Your task to perform on an android device: make emails show in primary in the gmail app Image 0: 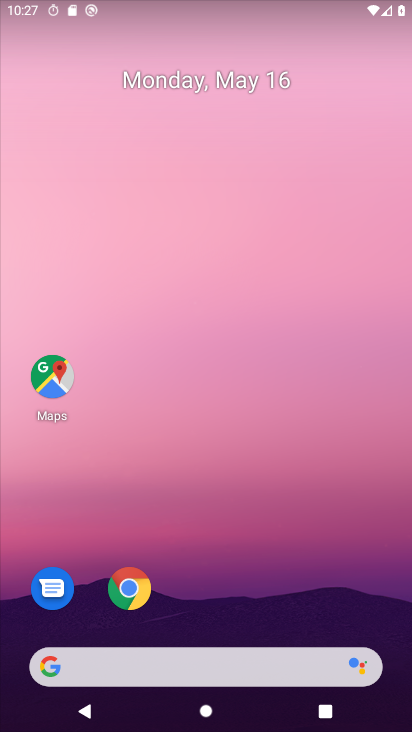
Step 0: press home button
Your task to perform on an android device: make emails show in primary in the gmail app Image 1: 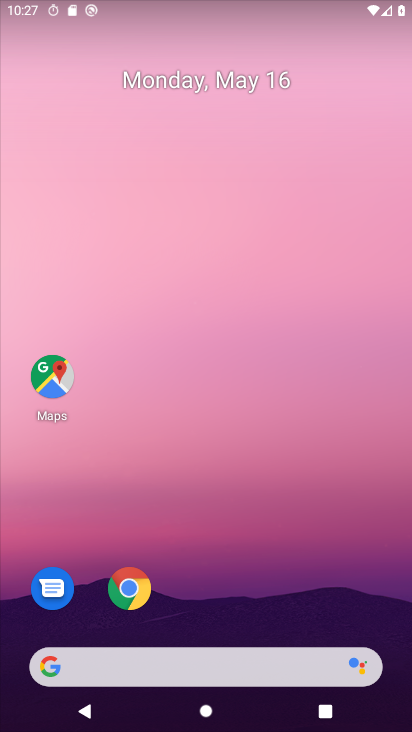
Step 1: drag from (213, 626) to (211, 4)
Your task to perform on an android device: make emails show in primary in the gmail app Image 2: 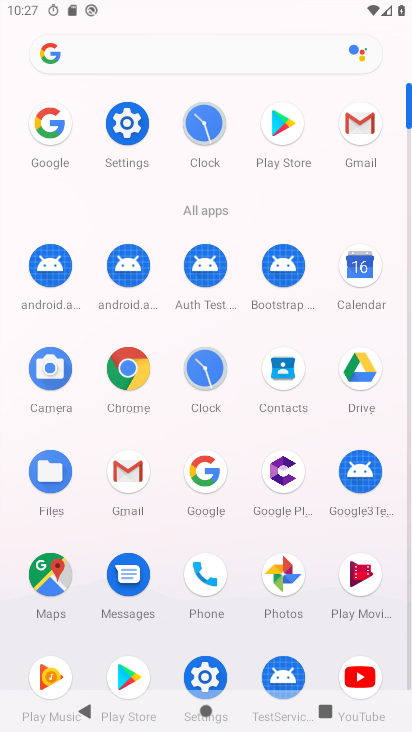
Step 2: click (126, 464)
Your task to perform on an android device: make emails show in primary in the gmail app Image 3: 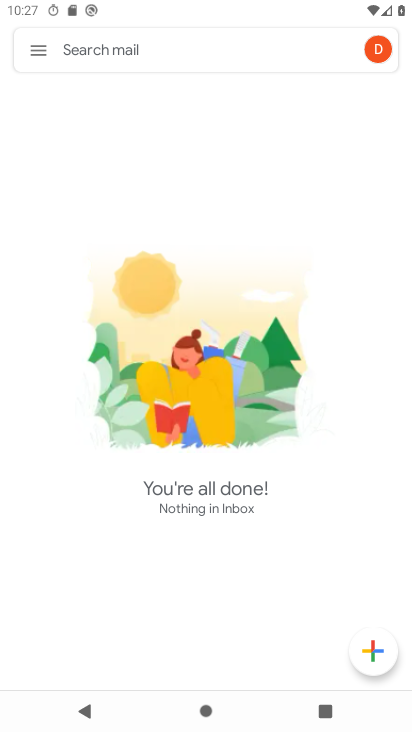
Step 3: click (33, 46)
Your task to perform on an android device: make emails show in primary in the gmail app Image 4: 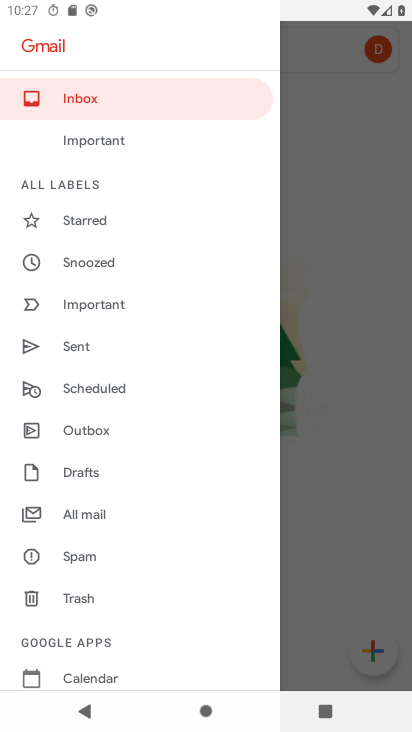
Step 4: drag from (141, 642) to (164, 15)
Your task to perform on an android device: make emails show in primary in the gmail app Image 5: 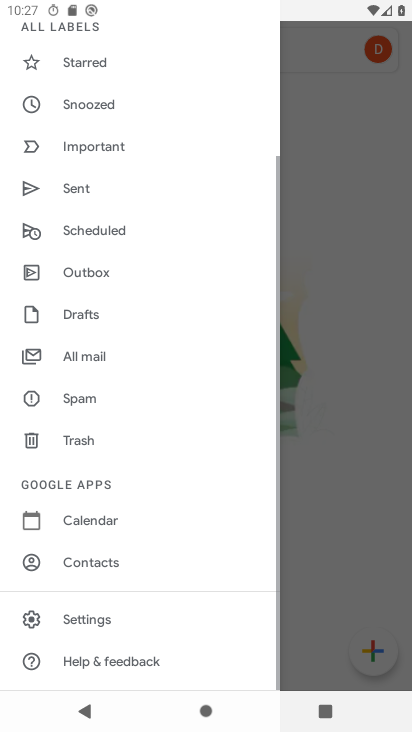
Step 5: click (111, 617)
Your task to perform on an android device: make emails show in primary in the gmail app Image 6: 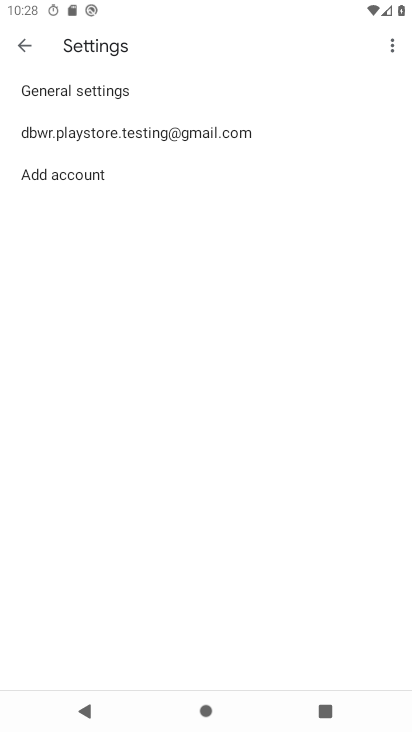
Step 6: click (263, 133)
Your task to perform on an android device: make emails show in primary in the gmail app Image 7: 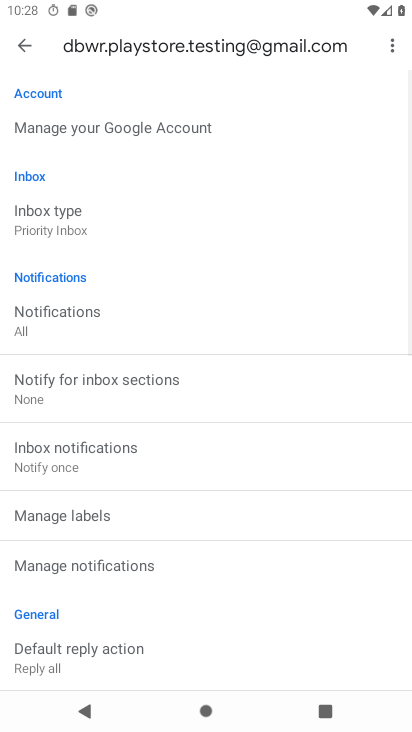
Step 7: click (93, 215)
Your task to perform on an android device: make emails show in primary in the gmail app Image 8: 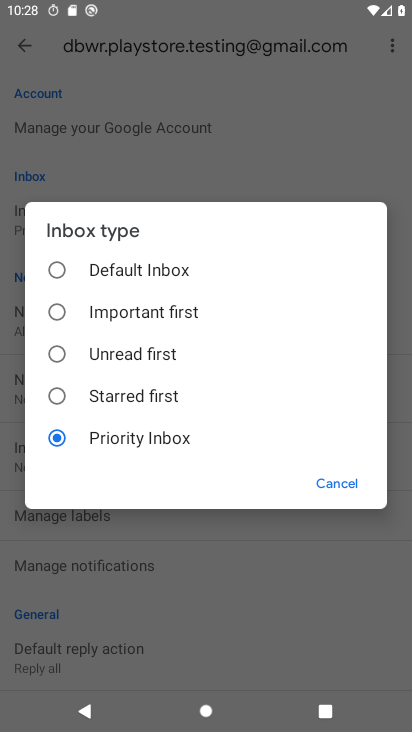
Step 8: click (62, 264)
Your task to perform on an android device: make emails show in primary in the gmail app Image 9: 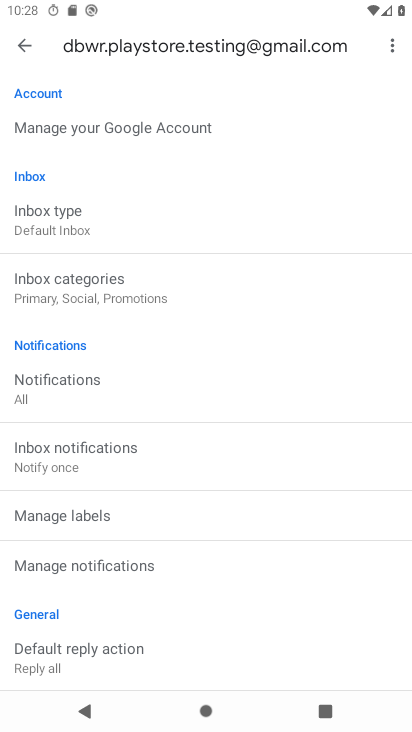
Step 9: task complete